Your task to perform on an android device: Open the stopwatch Image 0: 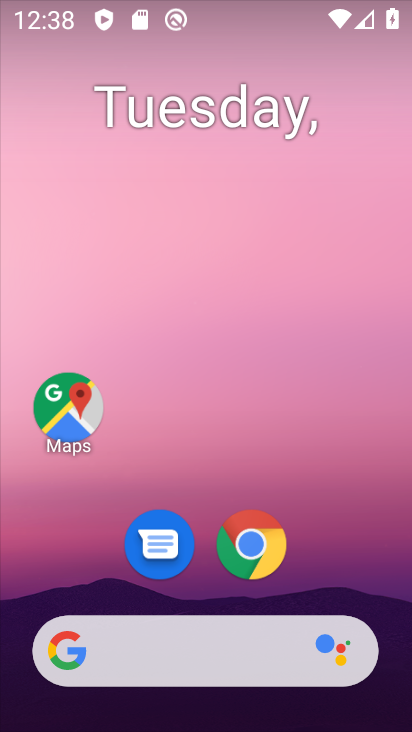
Step 0: drag from (402, 632) to (243, 23)
Your task to perform on an android device: Open the stopwatch Image 1: 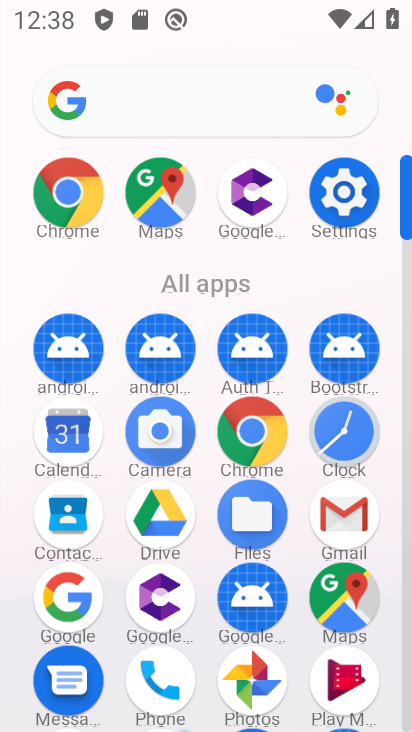
Step 1: click (344, 430)
Your task to perform on an android device: Open the stopwatch Image 2: 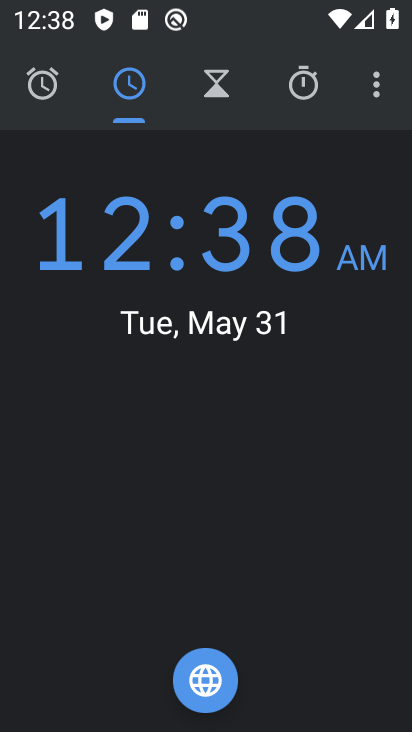
Step 2: click (302, 81)
Your task to perform on an android device: Open the stopwatch Image 3: 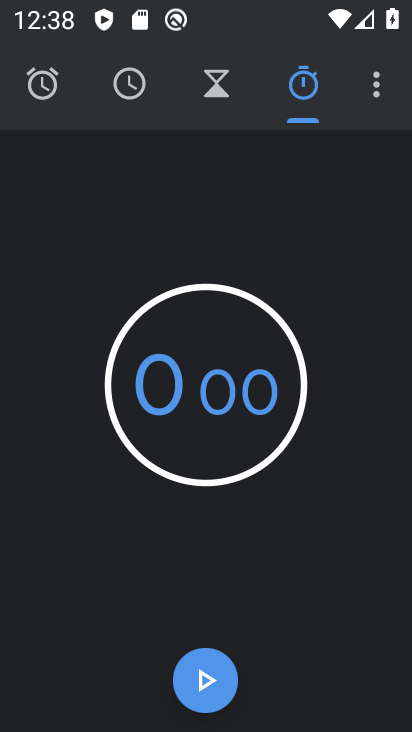
Step 3: task complete